Your task to perform on an android device: show emergency info Image 0: 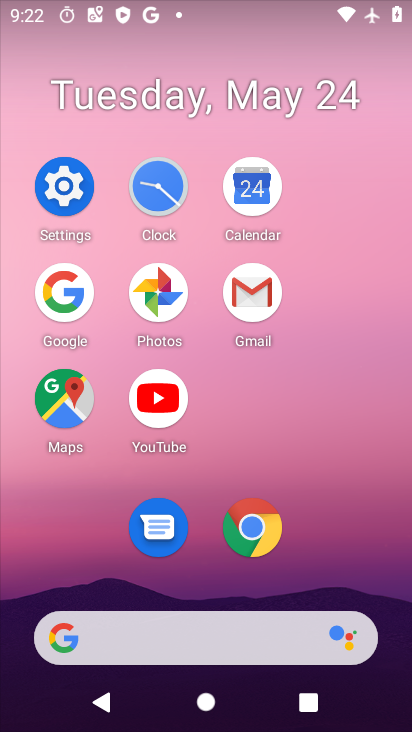
Step 0: click (77, 208)
Your task to perform on an android device: show emergency info Image 1: 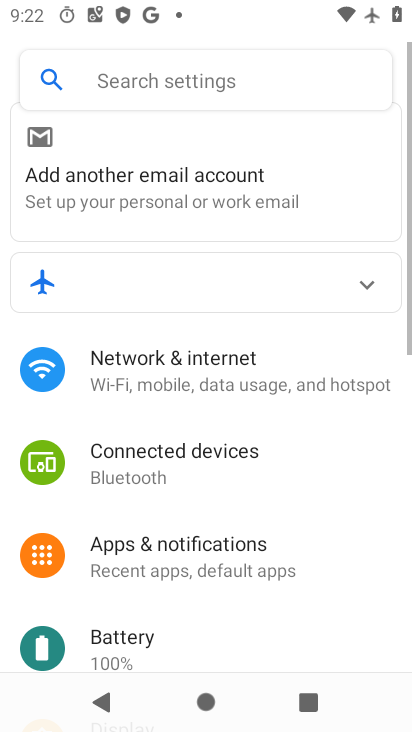
Step 1: drag from (228, 564) to (243, 138)
Your task to perform on an android device: show emergency info Image 2: 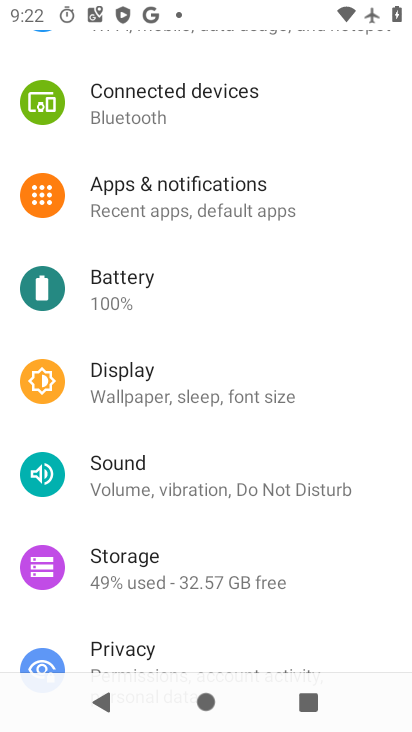
Step 2: drag from (231, 558) to (229, 179)
Your task to perform on an android device: show emergency info Image 3: 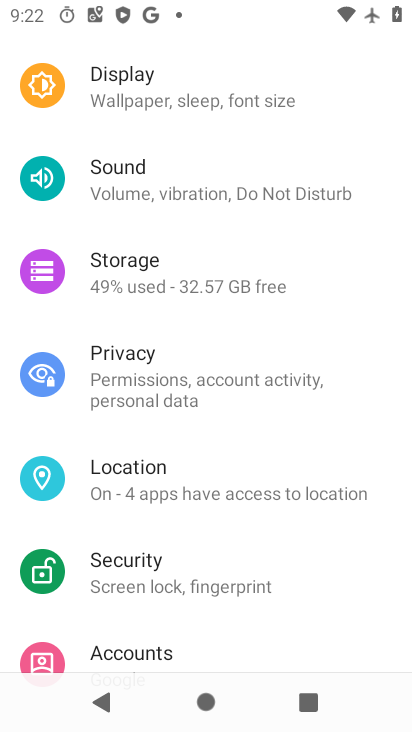
Step 3: drag from (242, 578) to (259, 229)
Your task to perform on an android device: show emergency info Image 4: 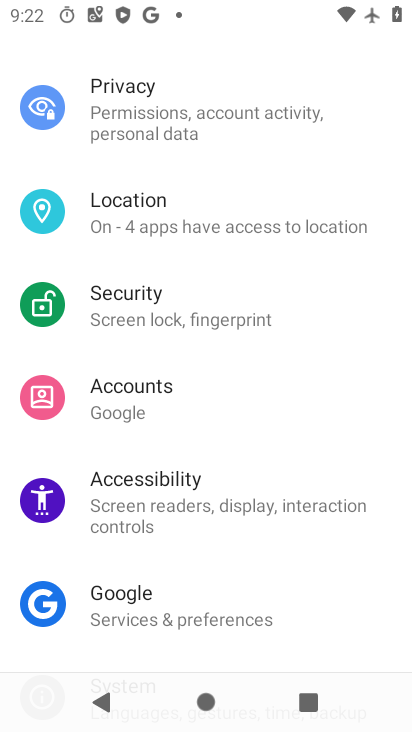
Step 4: drag from (238, 591) to (244, 233)
Your task to perform on an android device: show emergency info Image 5: 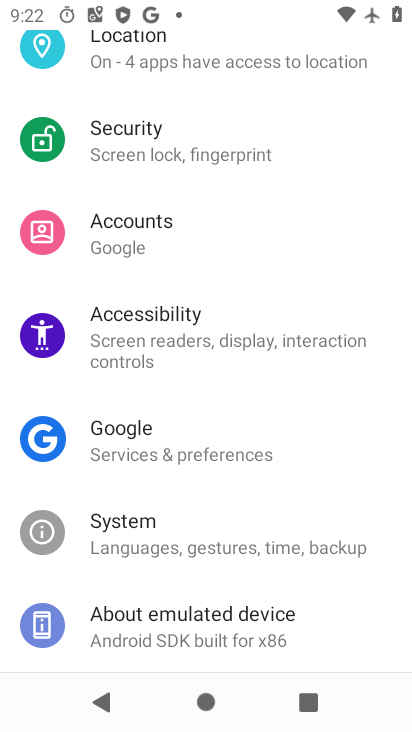
Step 5: click (225, 644)
Your task to perform on an android device: show emergency info Image 6: 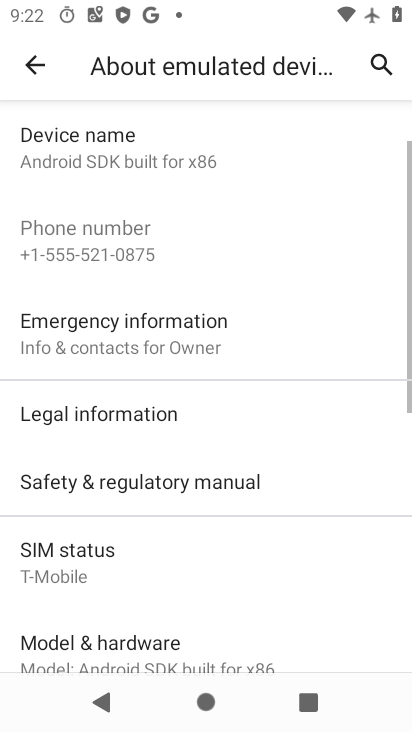
Step 6: click (204, 314)
Your task to perform on an android device: show emergency info Image 7: 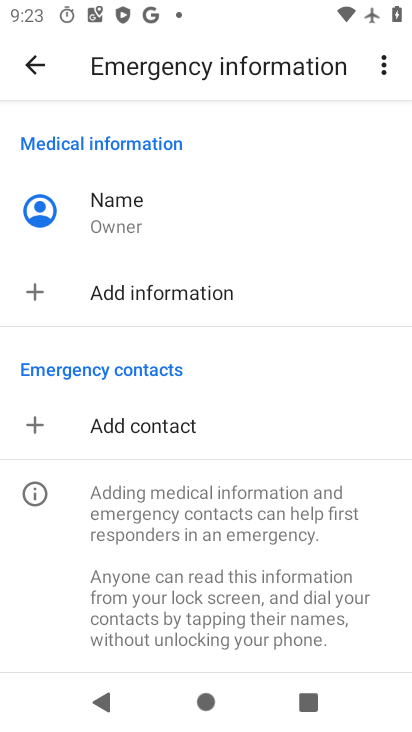
Step 7: task complete